Your task to perform on an android device: toggle javascript in the chrome app Image 0: 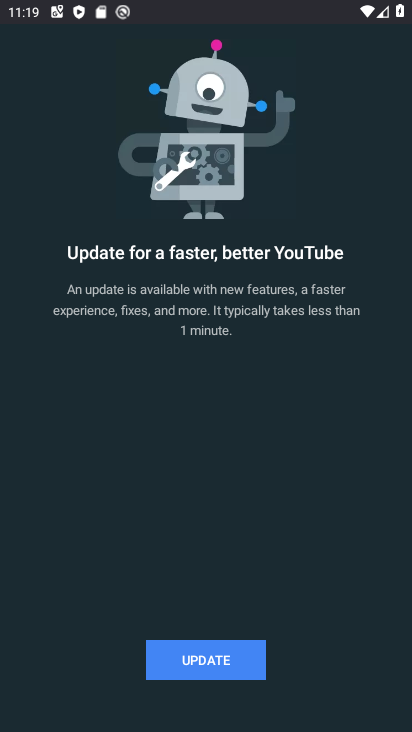
Step 0: press home button
Your task to perform on an android device: toggle javascript in the chrome app Image 1: 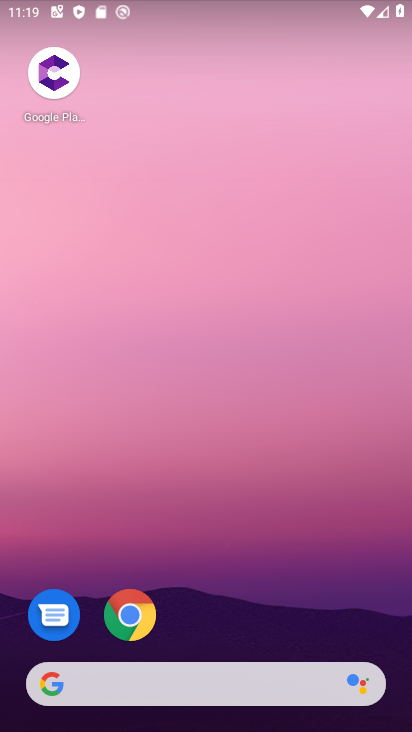
Step 1: click (143, 619)
Your task to perform on an android device: toggle javascript in the chrome app Image 2: 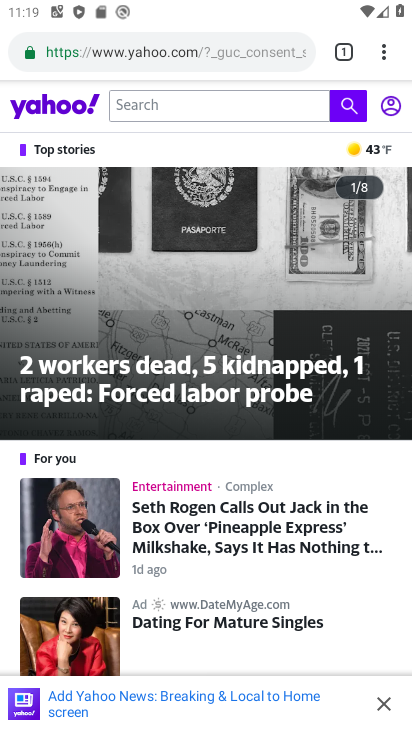
Step 2: click (384, 54)
Your task to perform on an android device: toggle javascript in the chrome app Image 3: 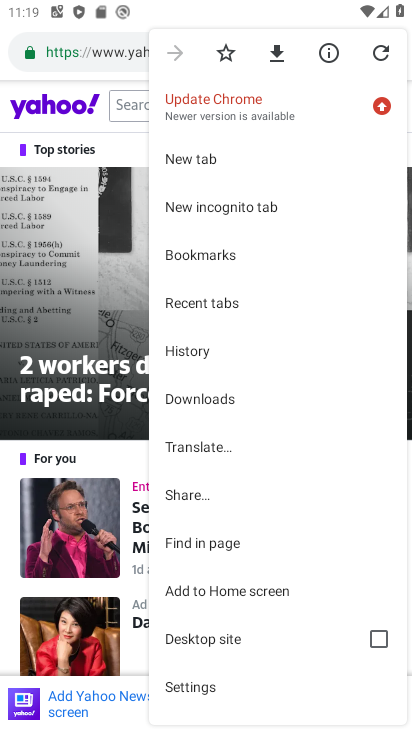
Step 3: click (213, 681)
Your task to perform on an android device: toggle javascript in the chrome app Image 4: 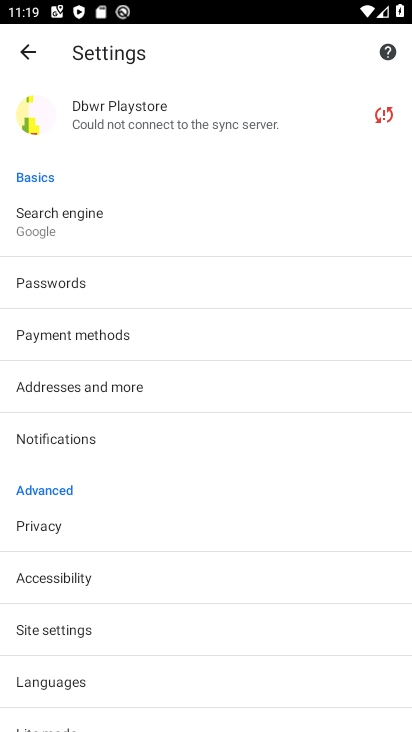
Step 4: click (136, 632)
Your task to perform on an android device: toggle javascript in the chrome app Image 5: 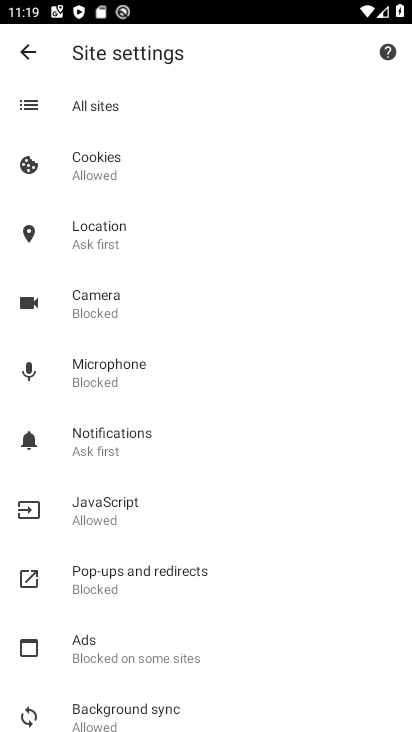
Step 5: click (115, 511)
Your task to perform on an android device: toggle javascript in the chrome app Image 6: 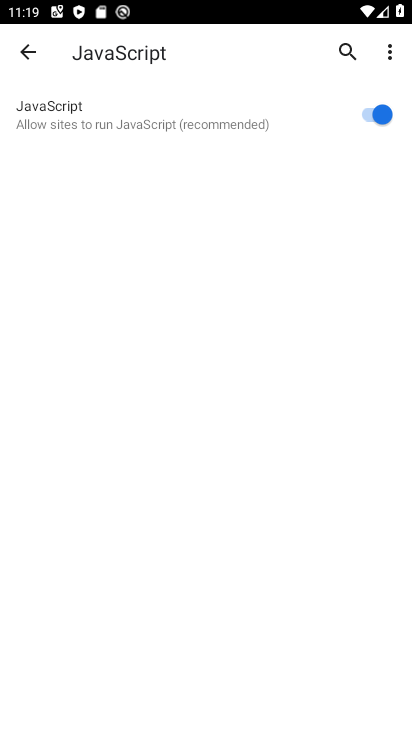
Step 6: drag from (150, 481) to (390, 420)
Your task to perform on an android device: toggle javascript in the chrome app Image 7: 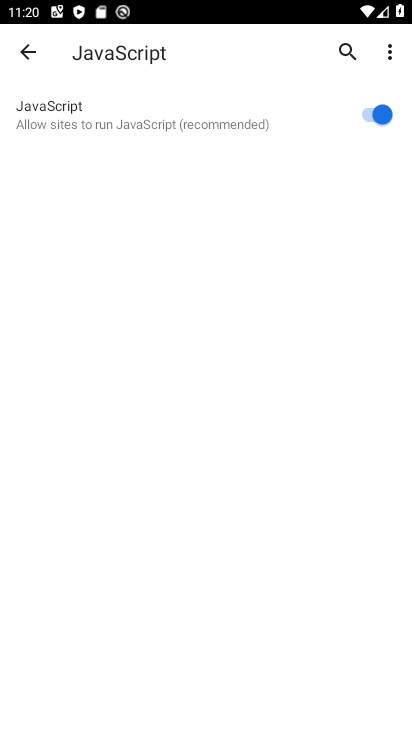
Step 7: click (367, 107)
Your task to perform on an android device: toggle javascript in the chrome app Image 8: 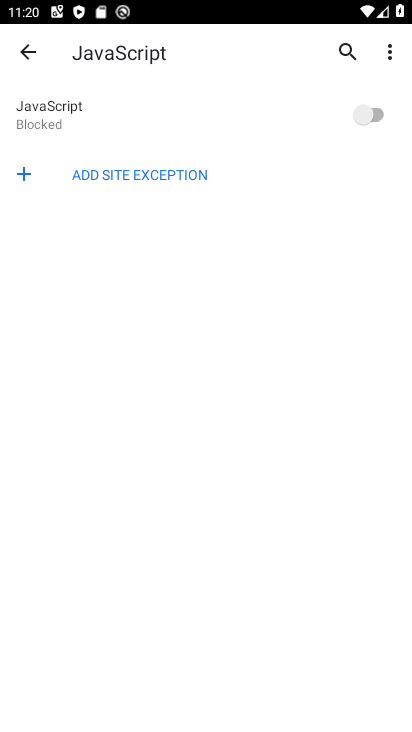
Step 8: task complete